Your task to perform on an android device: open app "PlayWell" (install if not already installed), go to login, and select forgot password Image 0: 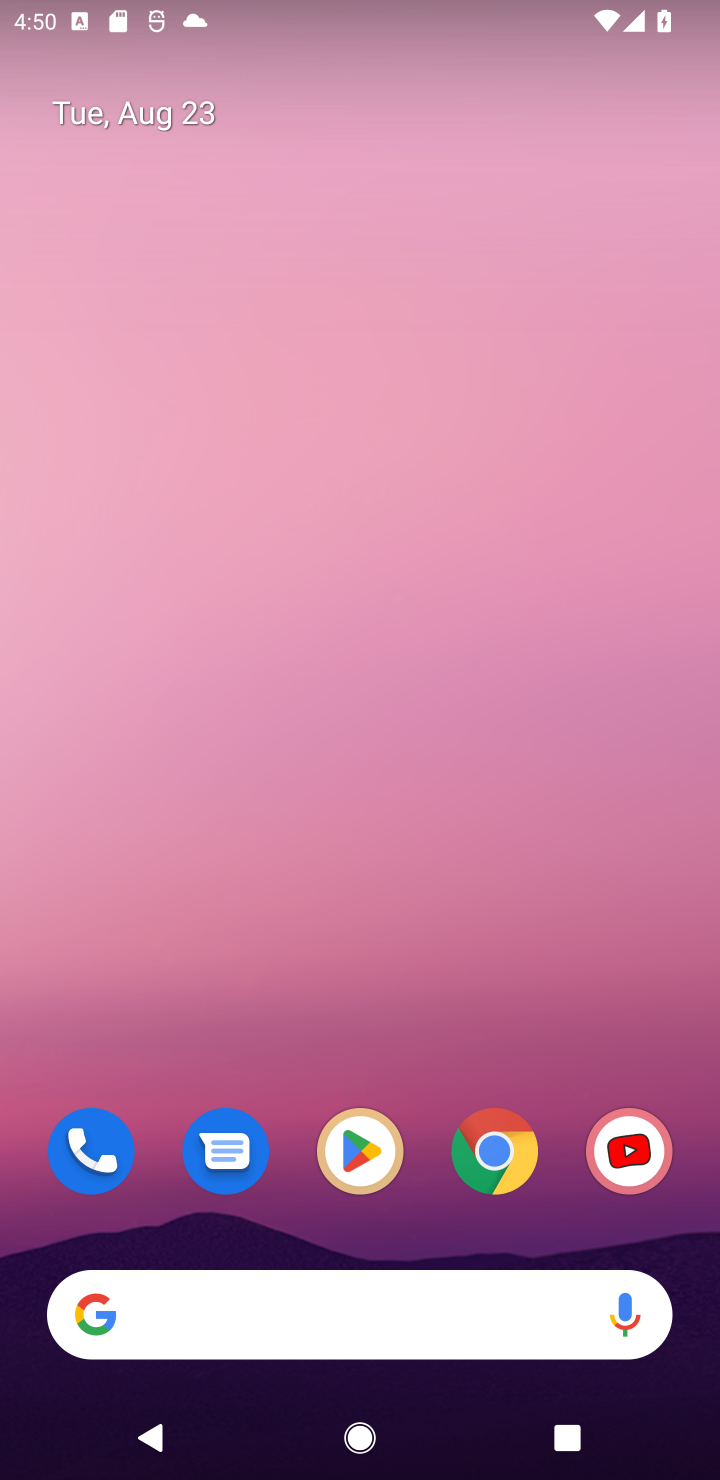
Step 0: press home button
Your task to perform on an android device: open app "PlayWell" (install if not already installed), go to login, and select forgot password Image 1: 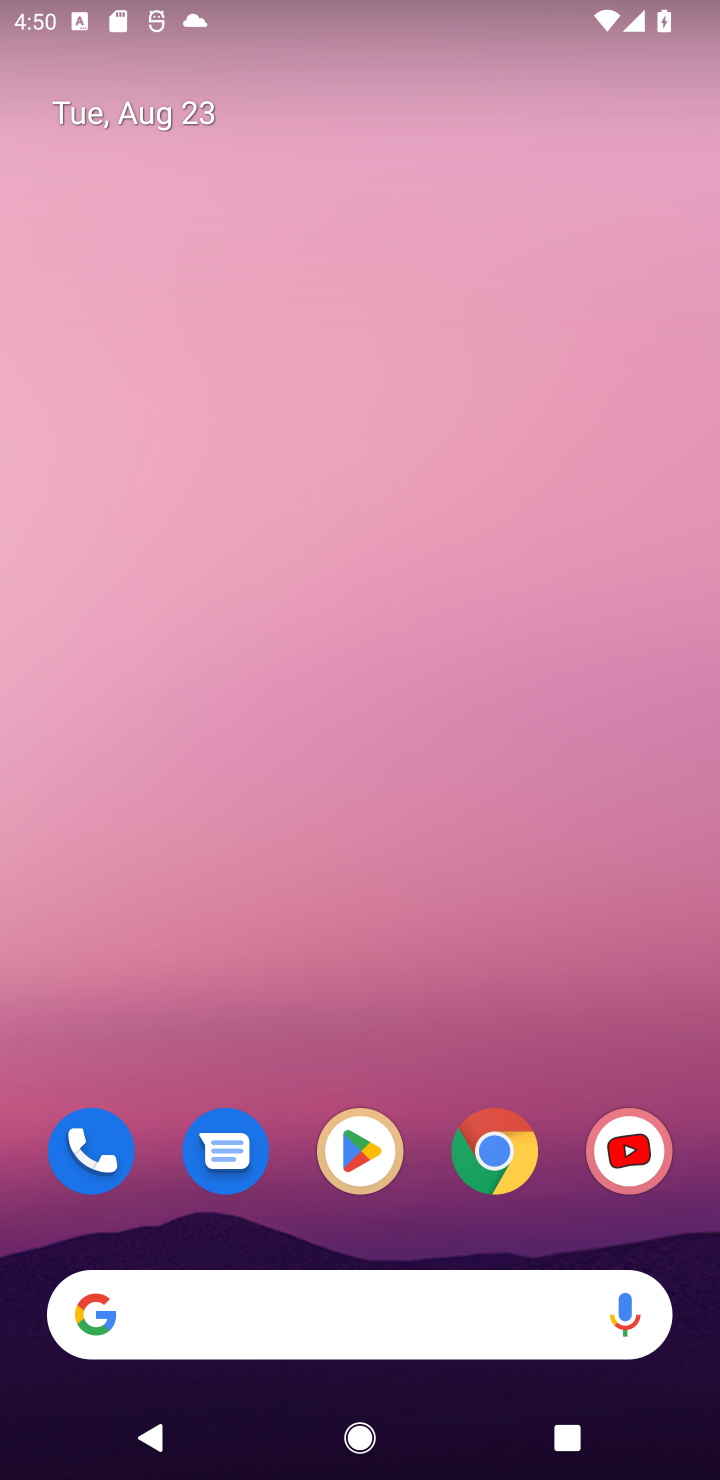
Step 1: click (368, 1162)
Your task to perform on an android device: open app "PlayWell" (install if not already installed), go to login, and select forgot password Image 2: 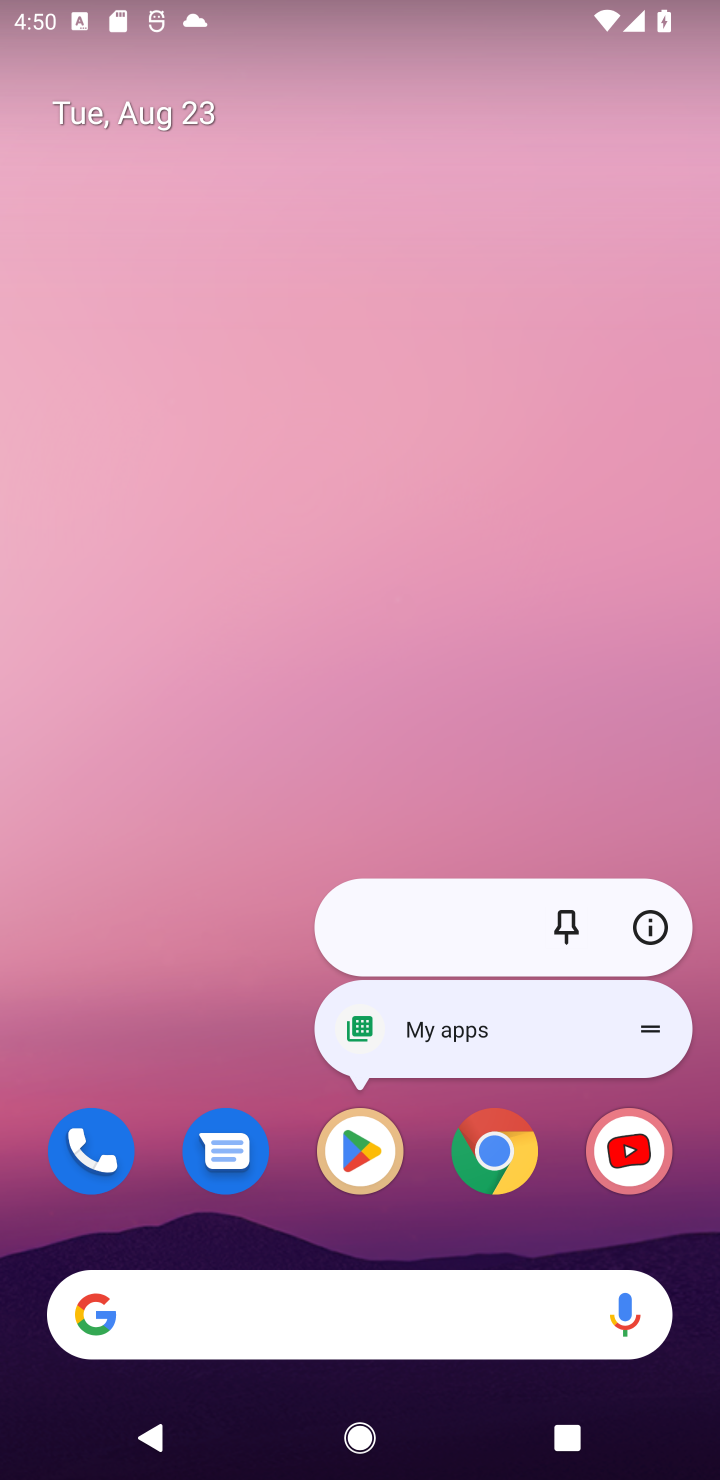
Step 2: click (368, 1160)
Your task to perform on an android device: open app "PlayWell" (install if not already installed), go to login, and select forgot password Image 3: 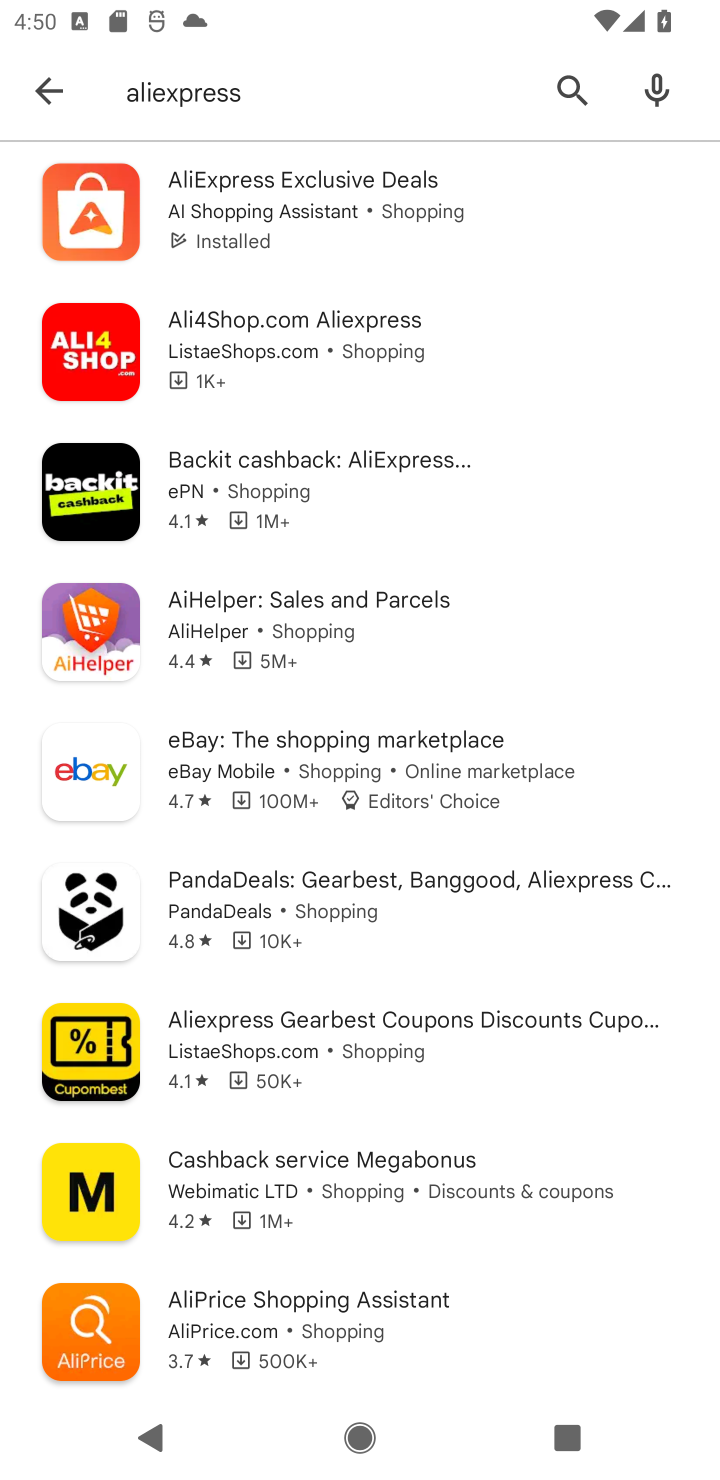
Step 3: click (490, 1142)
Your task to perform on an android device: open app "PlayWell" (install if not already installed), go to login, and select forgot password Image 4: 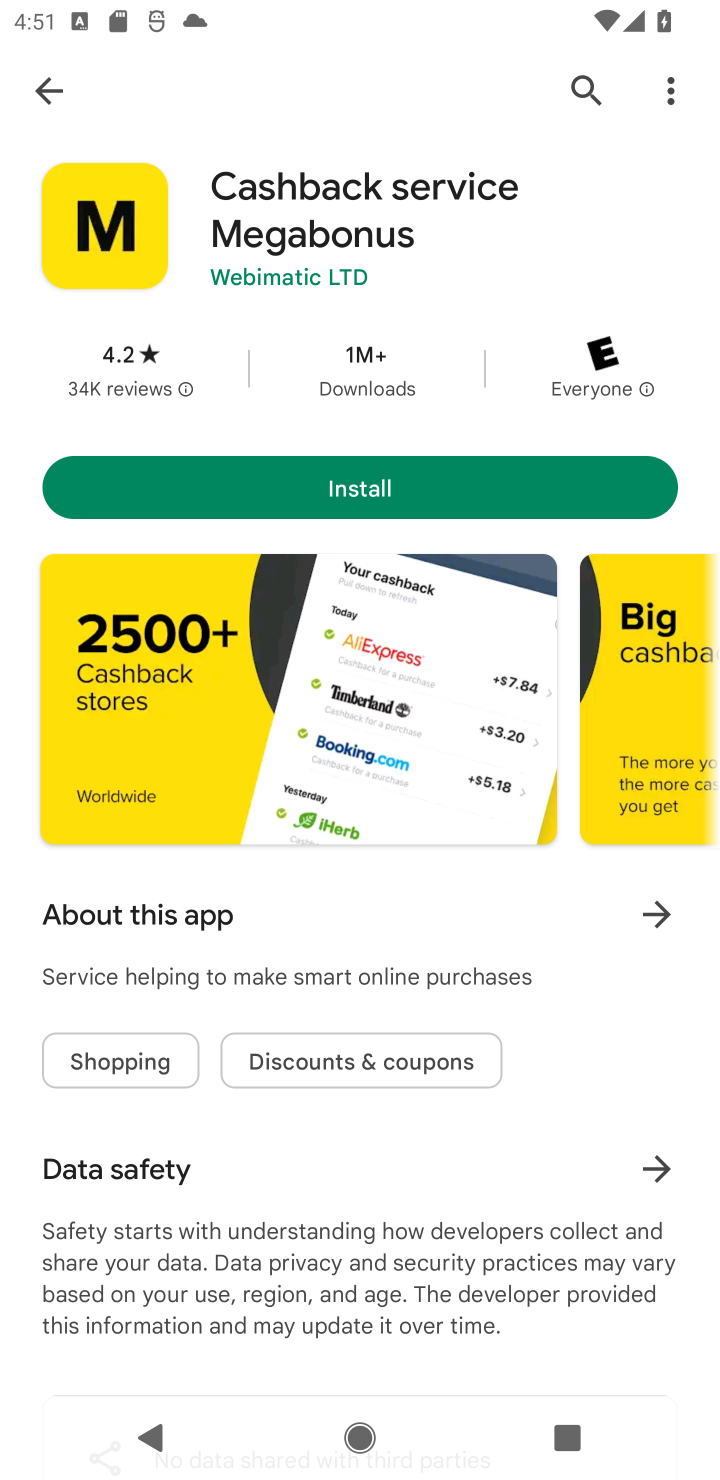
Step 4: click (572, 76)
Your task to perform on an android device: open app "PlayWell" (install if not already installed), go to login, and select forgot password Image 5: 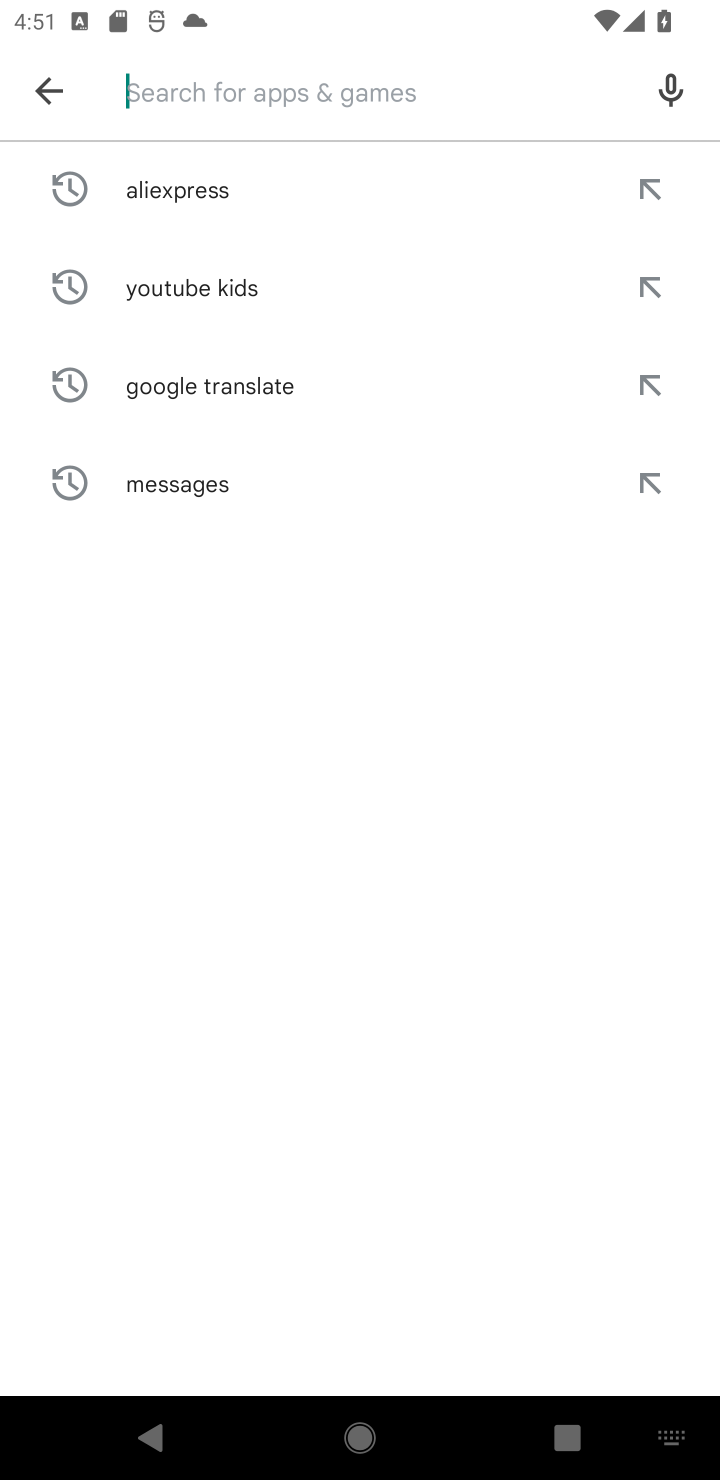
Step 5: type "PlayWell"
Your task to perform on an android device: open app "PlayWell" (install if not already installed), go to login, and select forgot password Image 6: 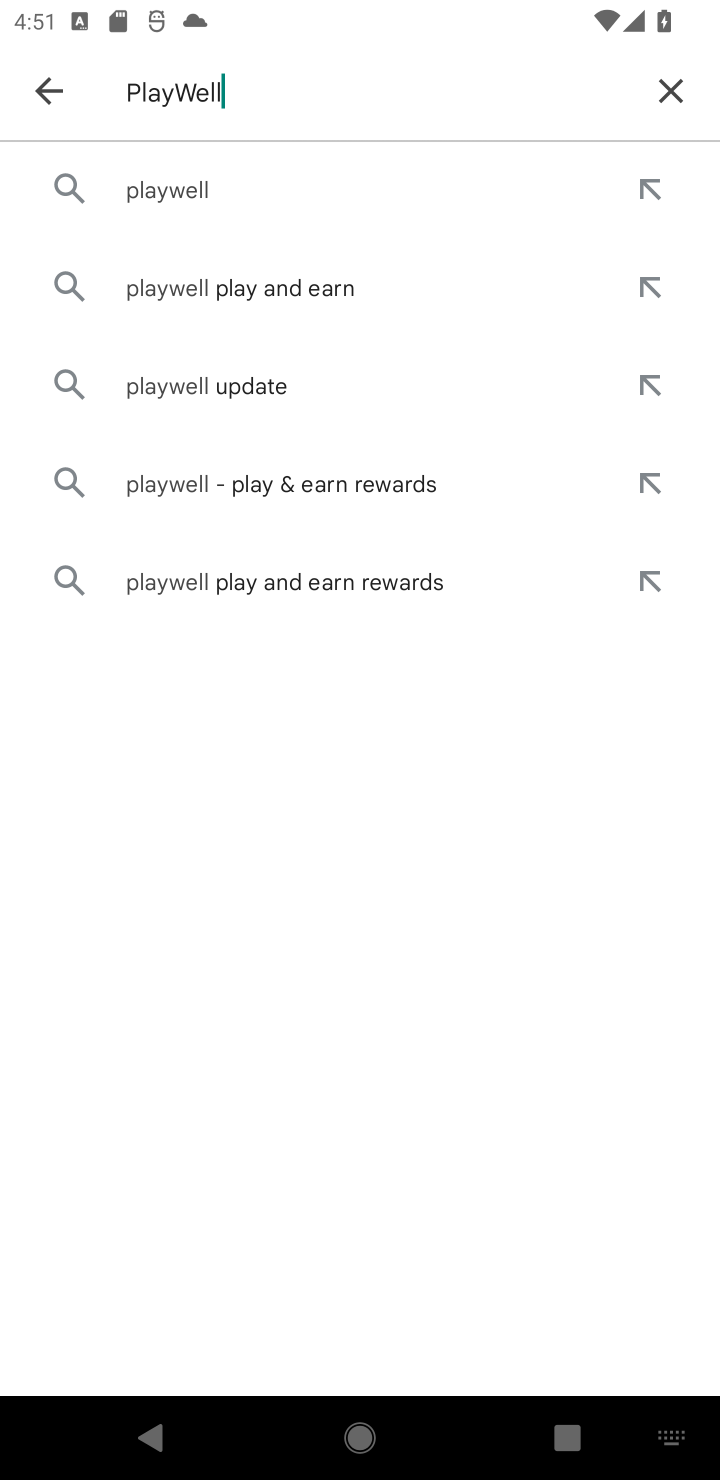
Step 6: click (162, 180)
Your task to perform on an android device: open app "PlayWell" (install if not already installed), go to login, and select forgot password Image 7: 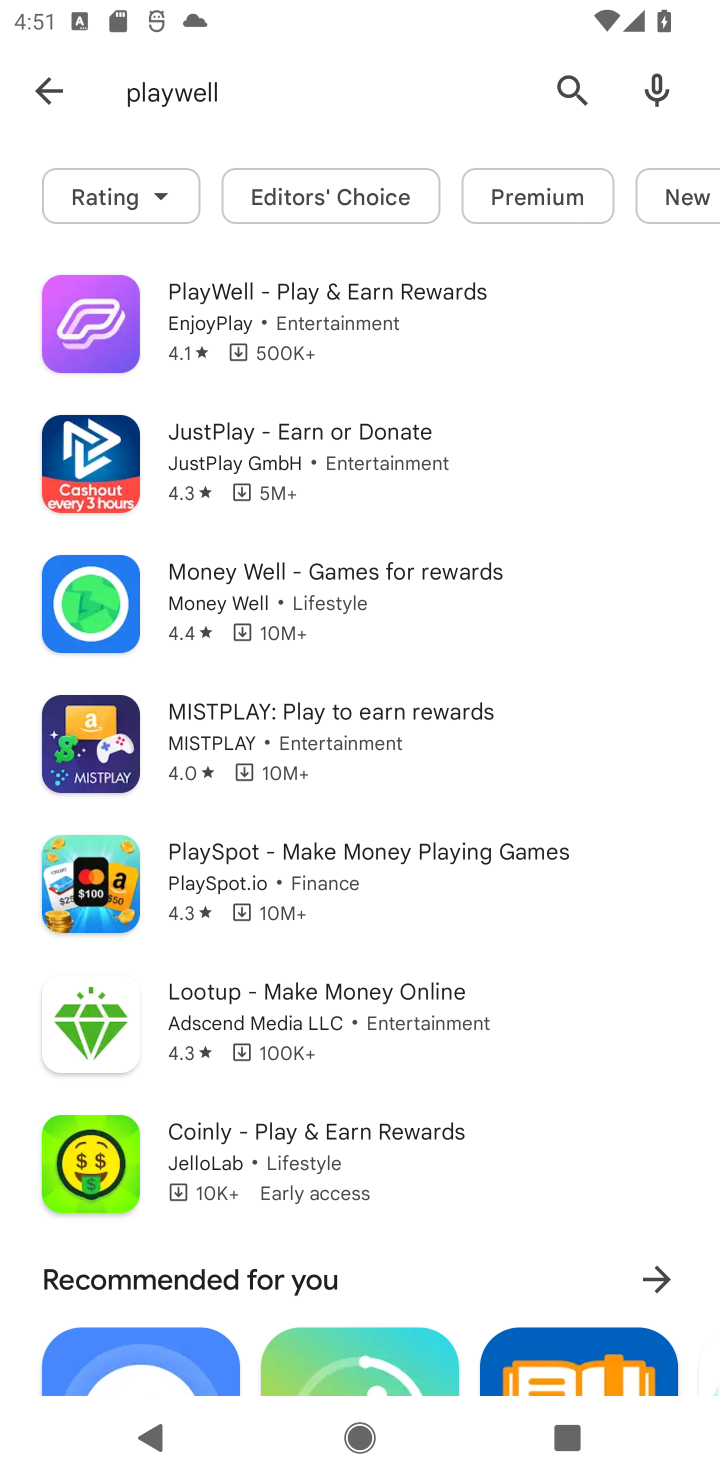
Step 7: click (311, 324)
Your task to perform on an android device: open app "PlayWell" (install if not already installed), go to login, and select forgot password Image 8: 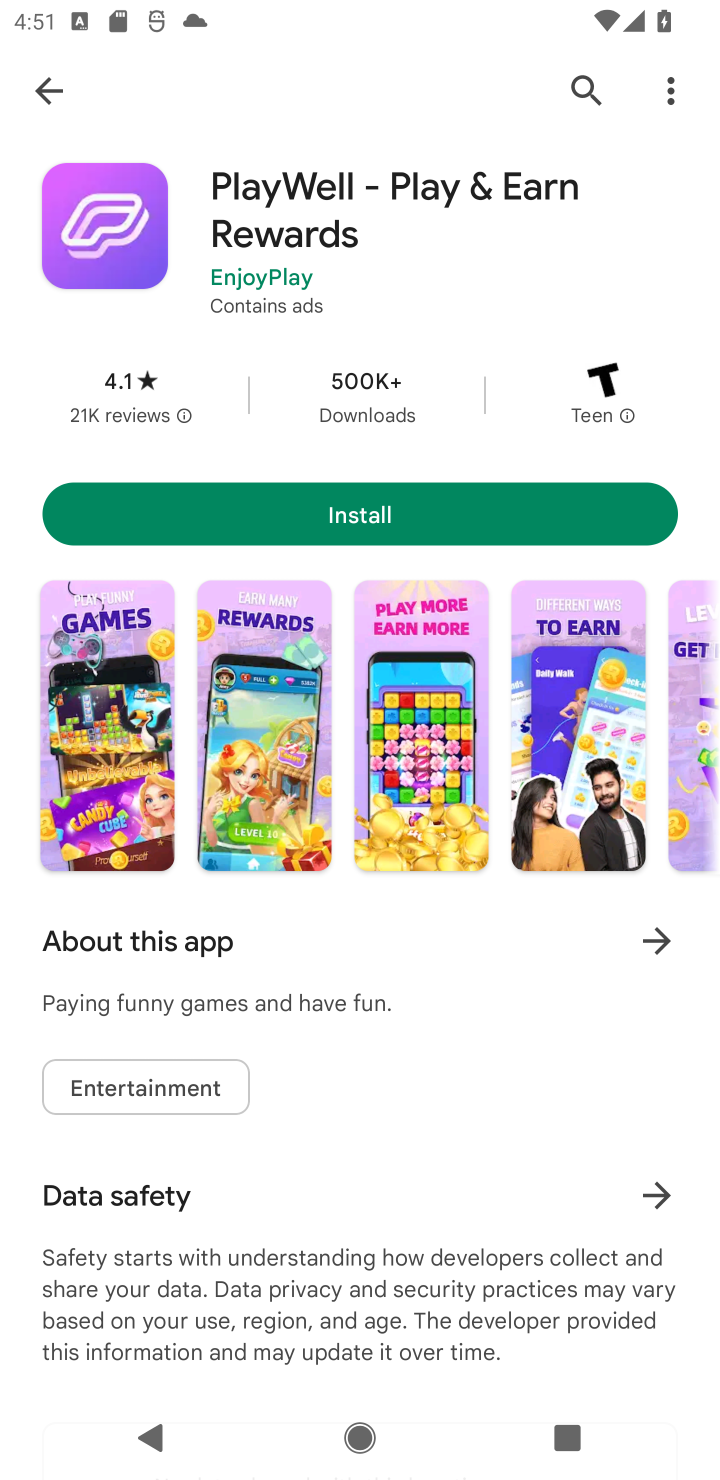
Step 8: click (383, 528)
Your task to perform on an android device: open app "PlayWell" (install if not already installed), go to login, and select forgot password Image 9: 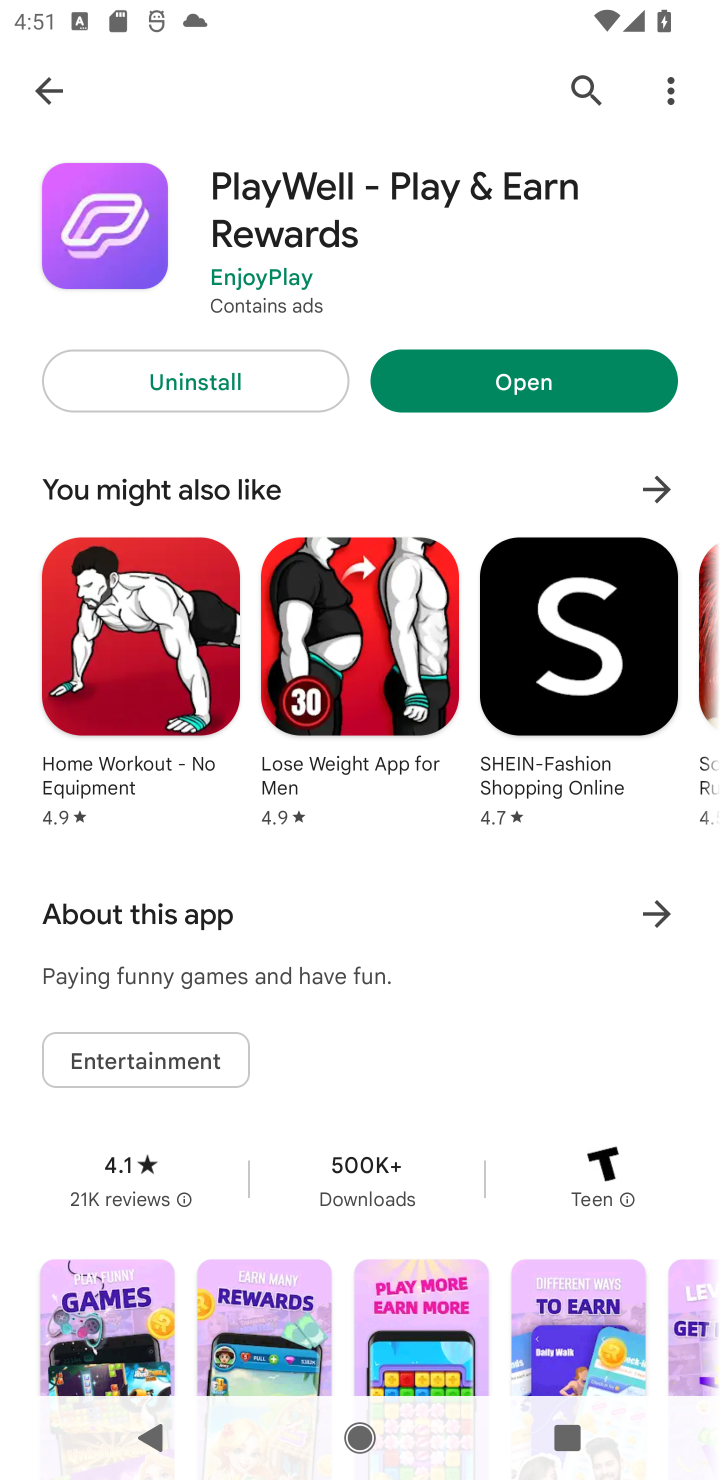
Step 9: click (563, 385)
Your task to perform on an android device: open app "PlayWell" (install if not already installed), go to login, and select forgot password Image 10: 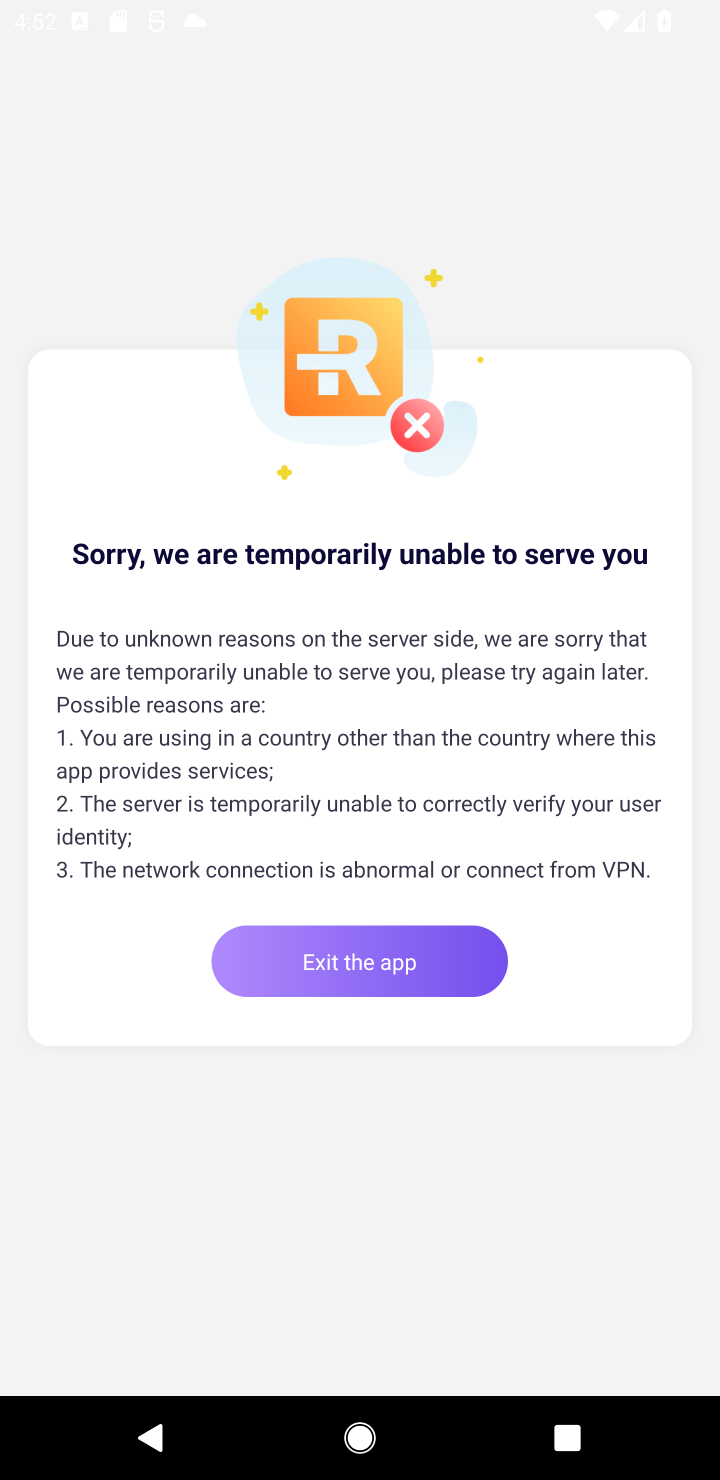
Step 10: task complete